Your task to perform on an android device: Go to Amazon Image 0: 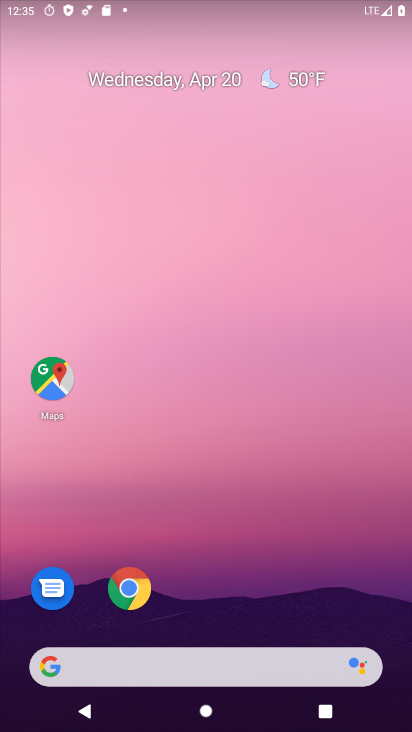
Step 0: click (117, 579)
Your task to perform on an android device: Go to Amazon Image 1: 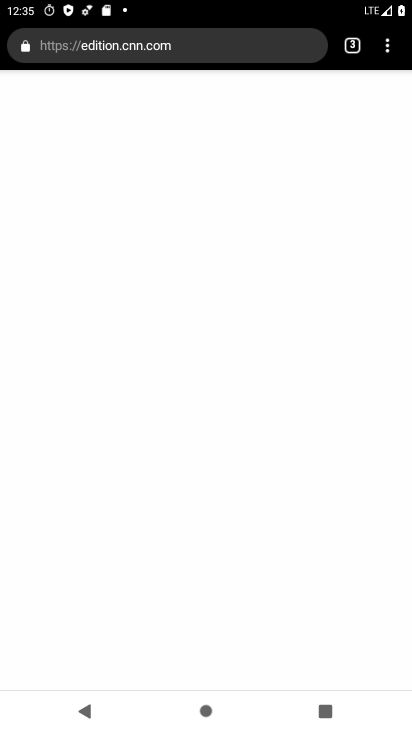
Step 1: click (345, 40)
Your task to perform on an android device: Go to Amazon Image 2: 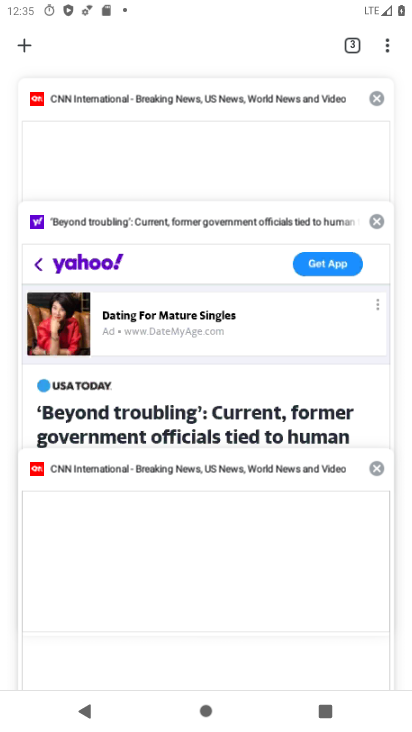
Step 2: click (25, 48)
Your task to perform on an android device: Go to Amazon Image 3: 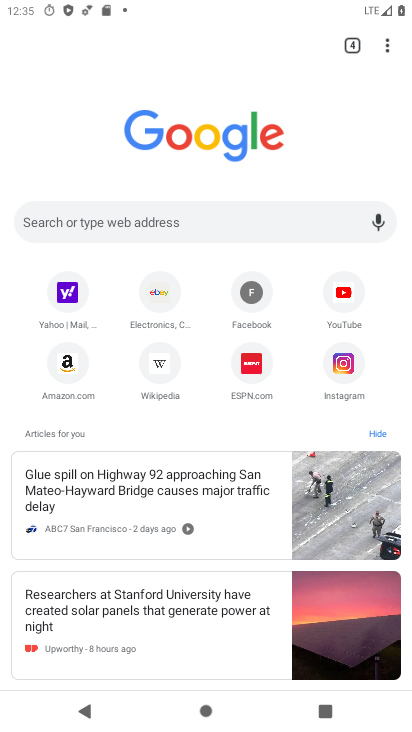
Step 3: click (61, 358)
Your task to perform on an android device: Go to Amazon Image 4: 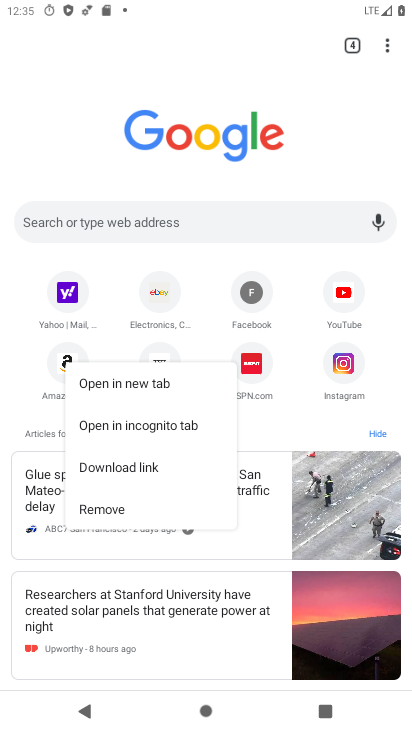
Step 4: click (61, 358)
Your task to perform on an android device: Go to Amazon Image 5: 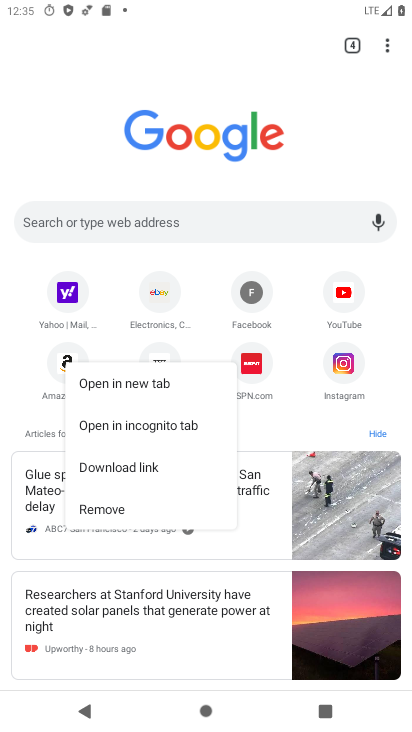
Step 5: click (46, 369)
Your task to perform on an android device: Go to Amazon Image 6: 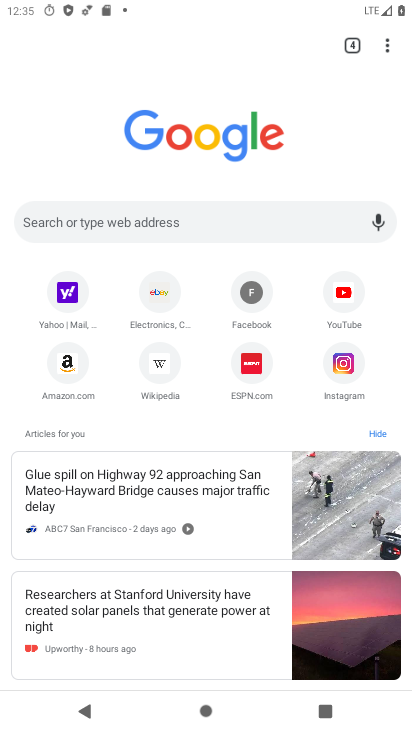
Step 6: click (71, 351)
Your task to perform on an android device: Go to Amazon Image 7: 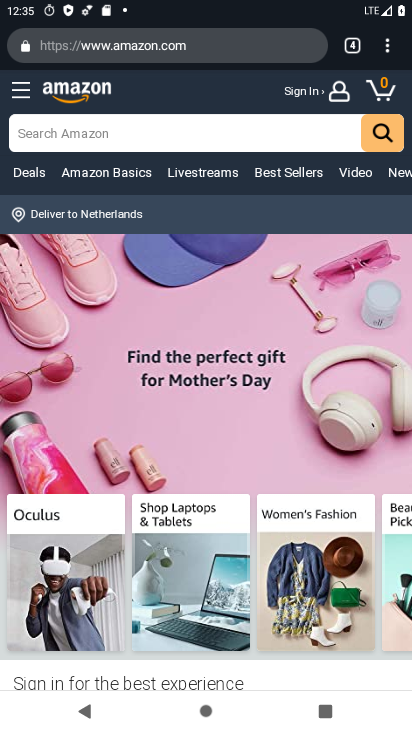
Step 7: task complete